Your task to perform on an android device: turn pop-ups on in chrome Image 0: 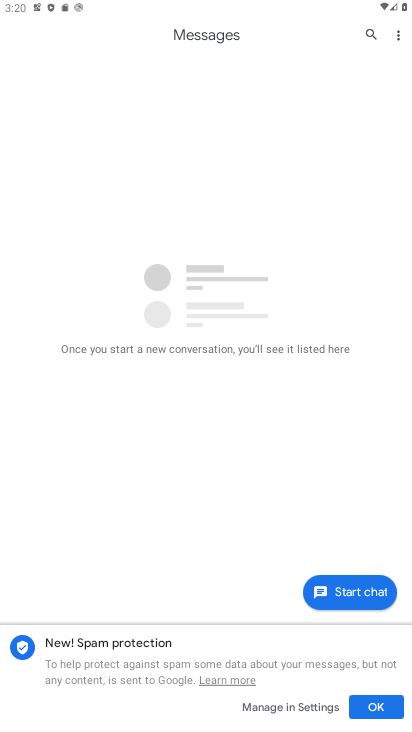
Step 0: press home button
Your task to perform on an android device: turn pop-ups on in chrome Image 1: 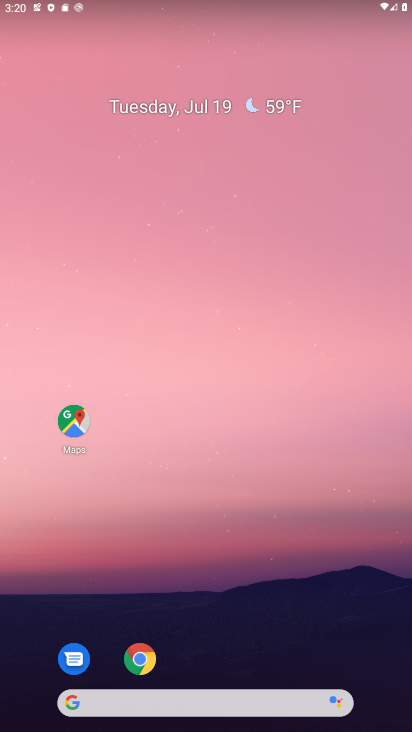
Step 1: click (140, 658)
Your task to perform on an android device: turn pop-ups on in chrome Image 2: 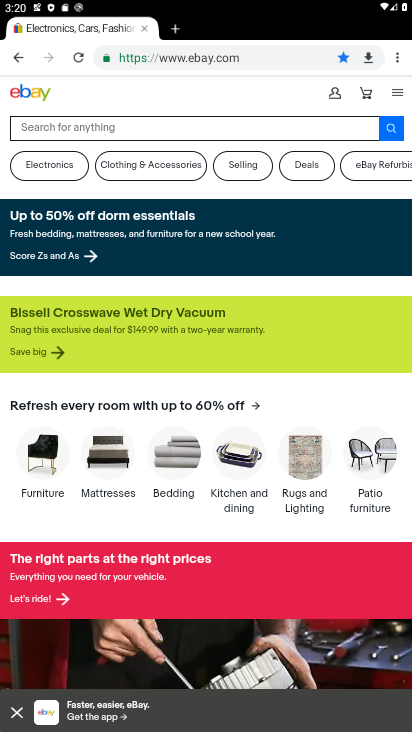
Step 2: click (398, 59)
Your task to perform on an android device: turn pop-ups on in chrome Image 3: 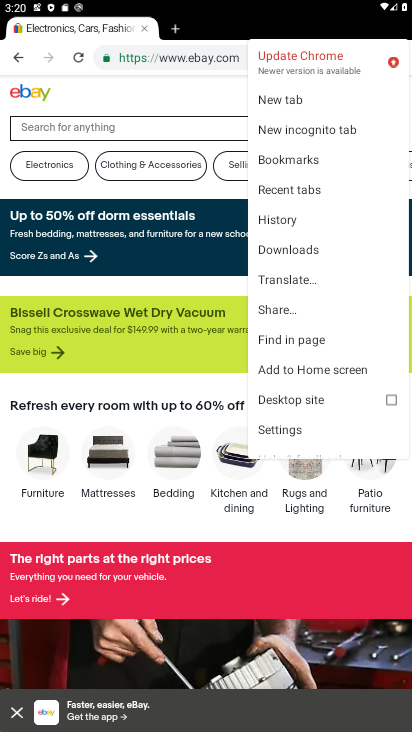
Step 3: click (274, 427)
Your task to perform on an android device: turn pop-ups on in chrome Image 4: 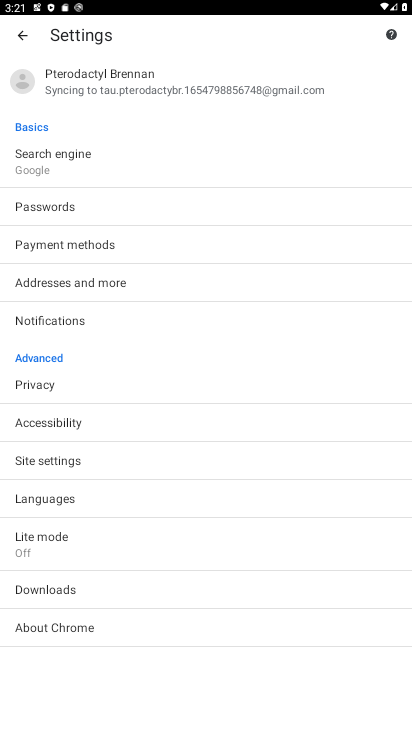
Step 4: click (73, 462)
Your task to perform on an android device: turn pop-ups on in chrome Image 5: 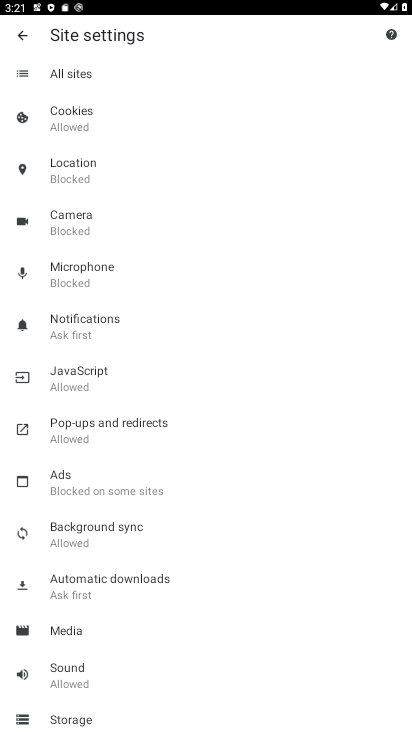
Step 5: click (96, 423)
Your task to perform on an android device: turn pop-ups on in chrome Image 6: 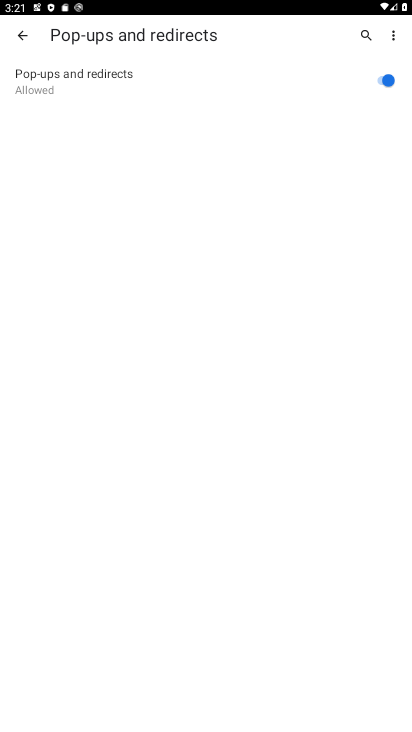
Step 6: task complete